Your task to perform on an android device: Open wifi settings Image 0: 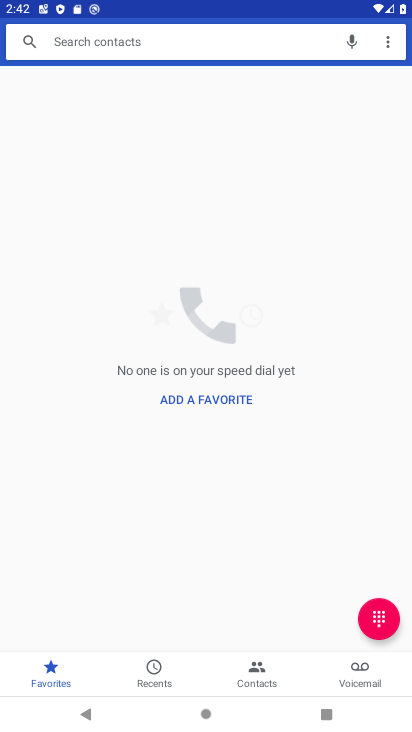
Step 0: press home button
Your task to perform on an android device: Open wifi settings Image 1: 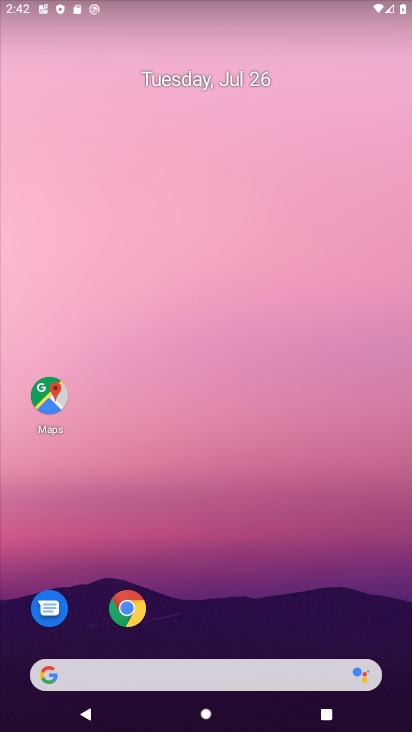
Step 1: drag from (218, 637) to (253, 6)
Your task to perform on an android device: Open wifi settings Image 2: 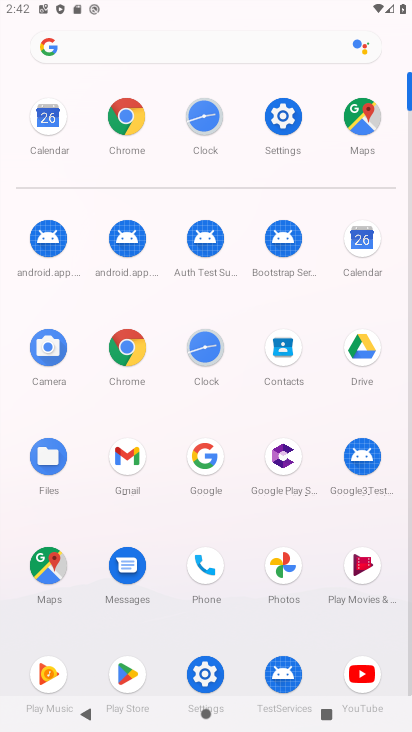
Step 2: click (200, 673)
Your task to perform on an android device: Open wifi settings Image 3: 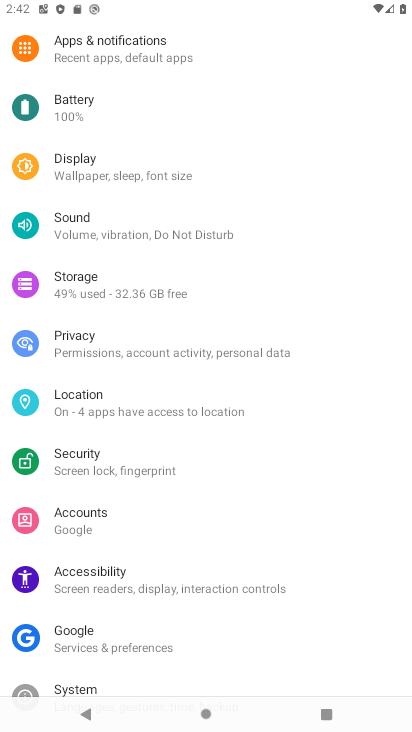
Step 3: drag from (125, 89) to (281, 553)
Your task to perform on an android device: Open wifi settings Image 4: 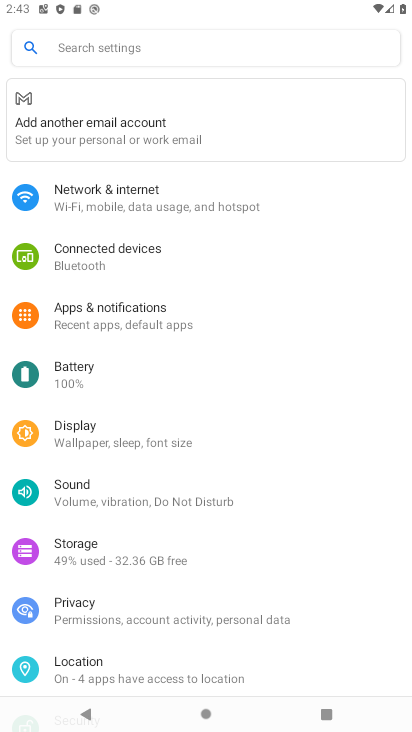
Step 4: click (141, 207)
Your task to perform on an android device: Open wifi settings Image 5: 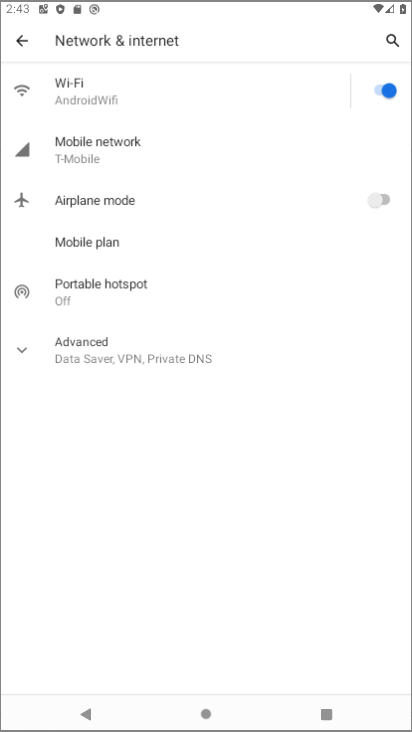
Step 5: task complete